Your task to perform on an android device: turn on notifications settings in the gmail app Image 0: 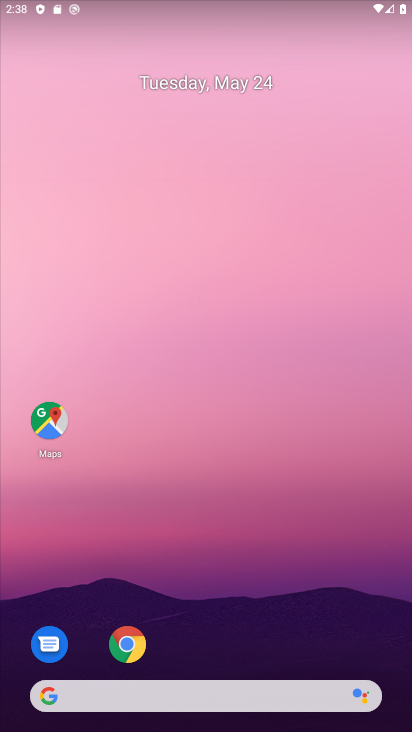
Step 0: drag from (337, 616) to (314, 76)
Your task to perform on an android device: turn on notifications settings in the gmail app Image 1: 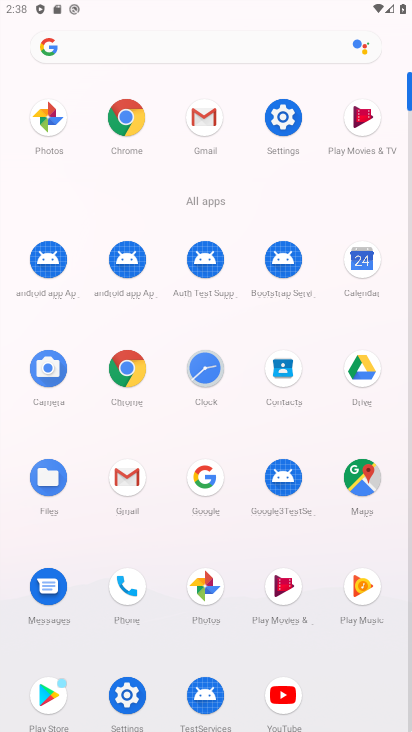
Step 1: click (286, 125)
Your task to perform on an android device: turn on notifications settings in the gmail app Image 2: 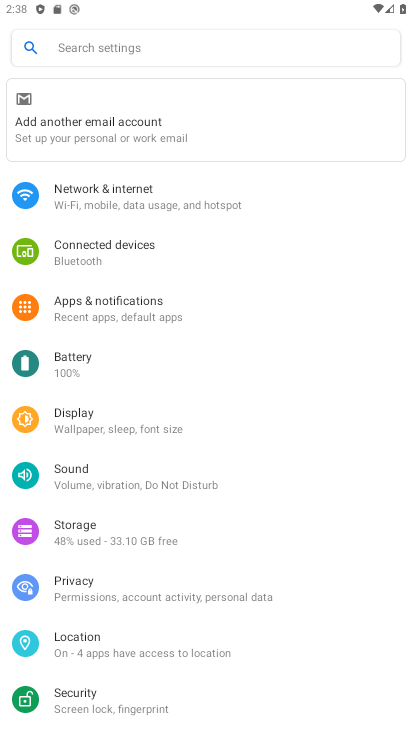
Step 2: click (112, 297)
Your task to perform on an android device: turn on notifications settings in the gmail app Image 3: 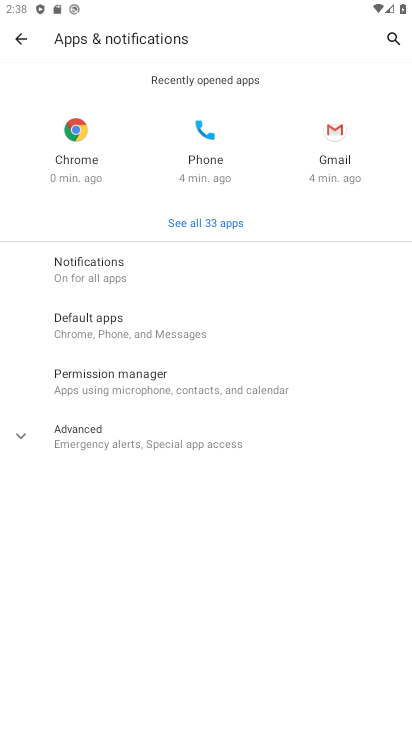
Step 3: click (111, 265)
Your task to perform on an android device: turn on notifications settings in the gmail app Image 4: 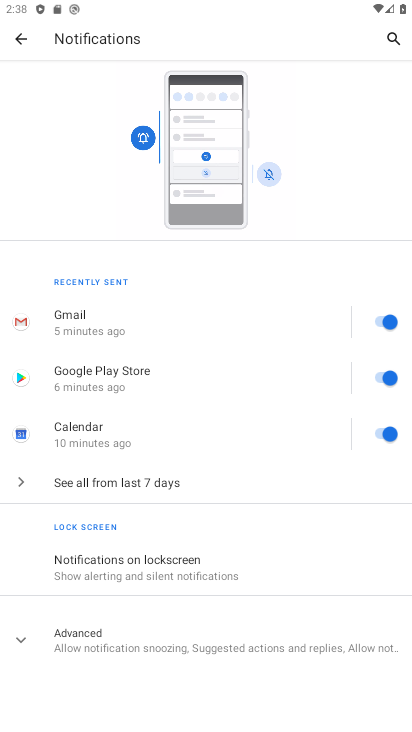
Step 4: task complete